Your task to perform on an android device: install app "Google Duo" Image 0: 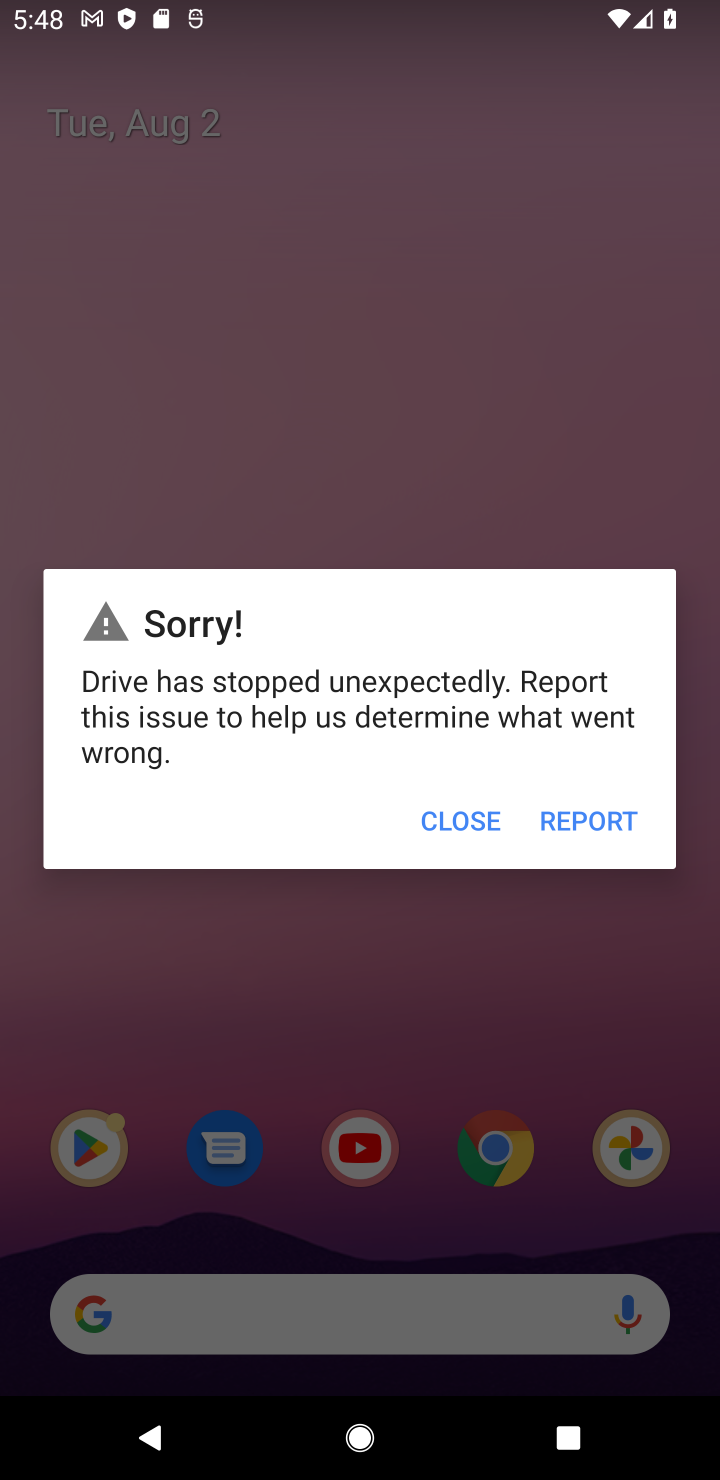
Step 0: click (450, 840)
Your task to perform on an android device: install app "Google Duo" Image 1: 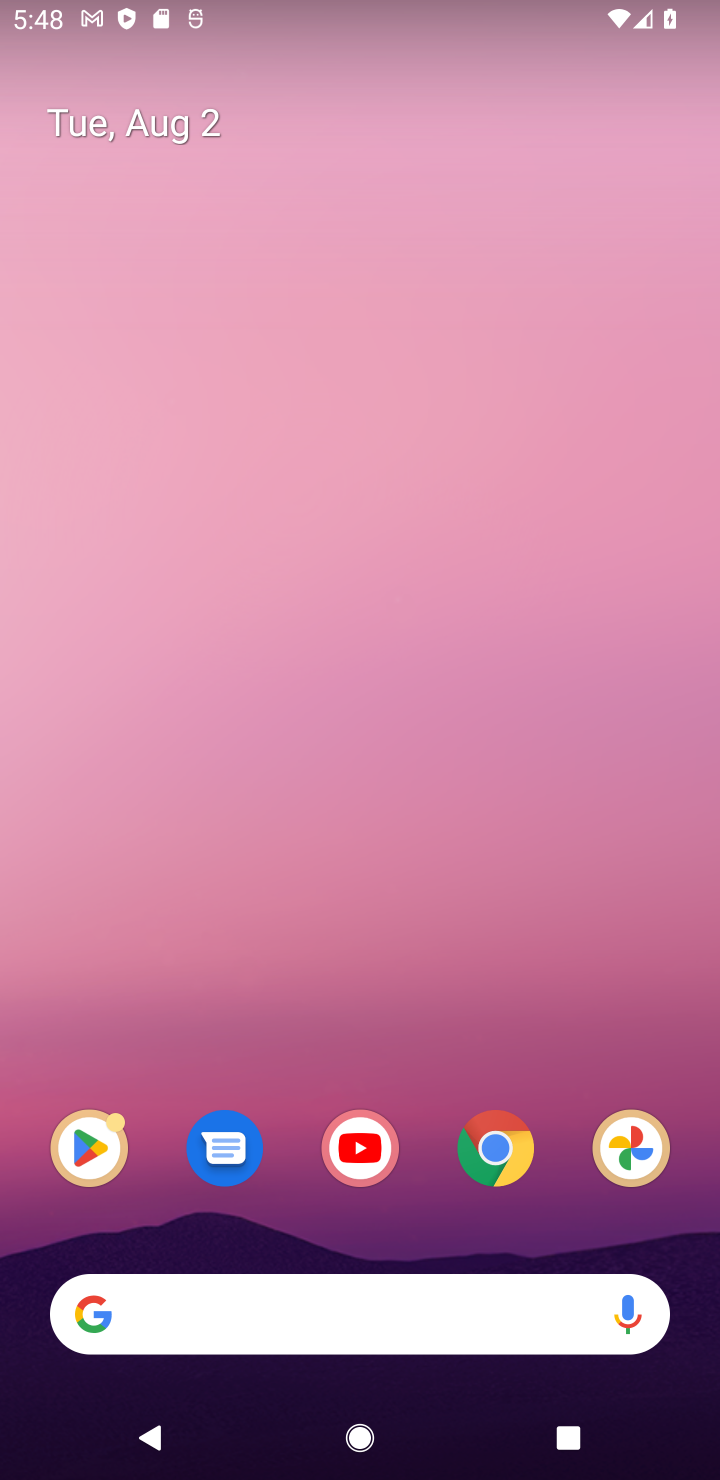
Step 1: drag from (554, 1118) to (262, 115)
Your task to perform on an android device: install app "Google Duo" Image 2: 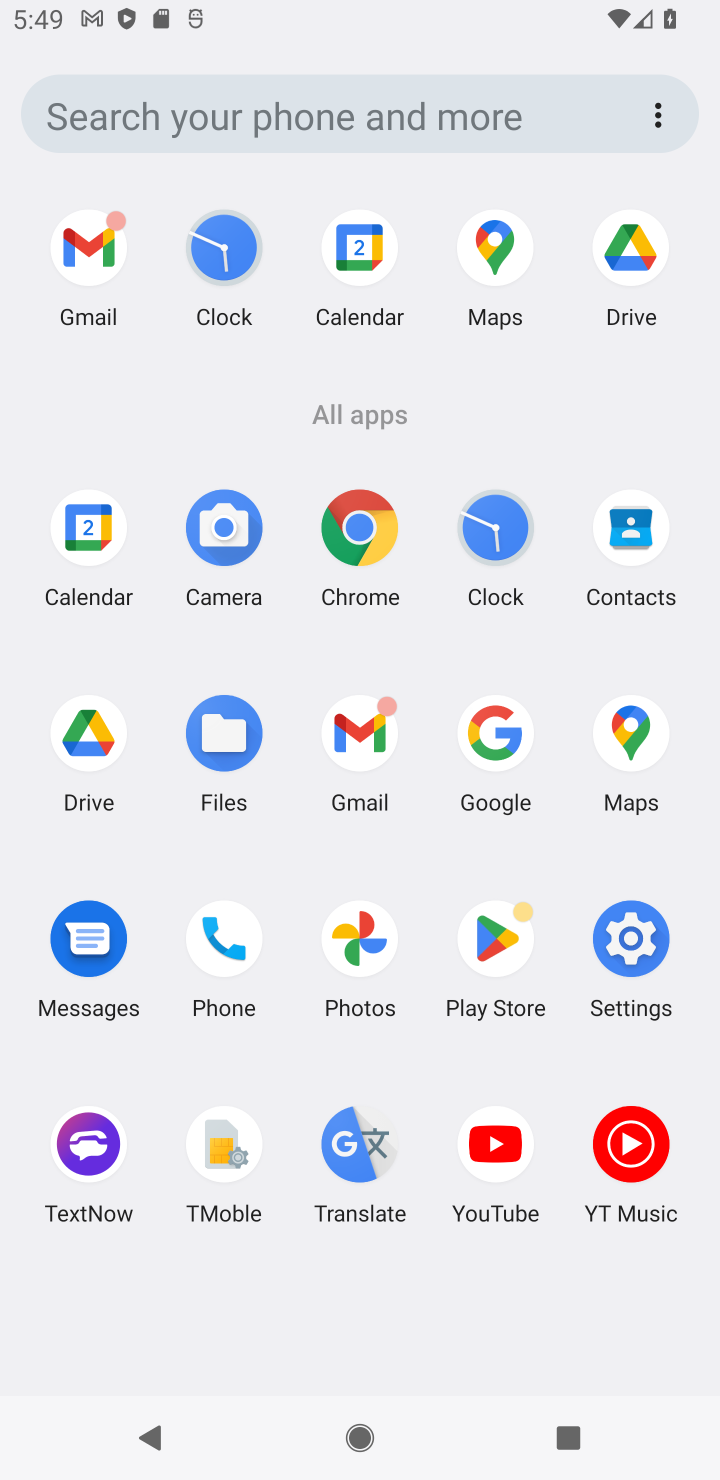
Step 2: click (472, 943)
Your task to perform on an android device: install app "Google Duo" Image 3: 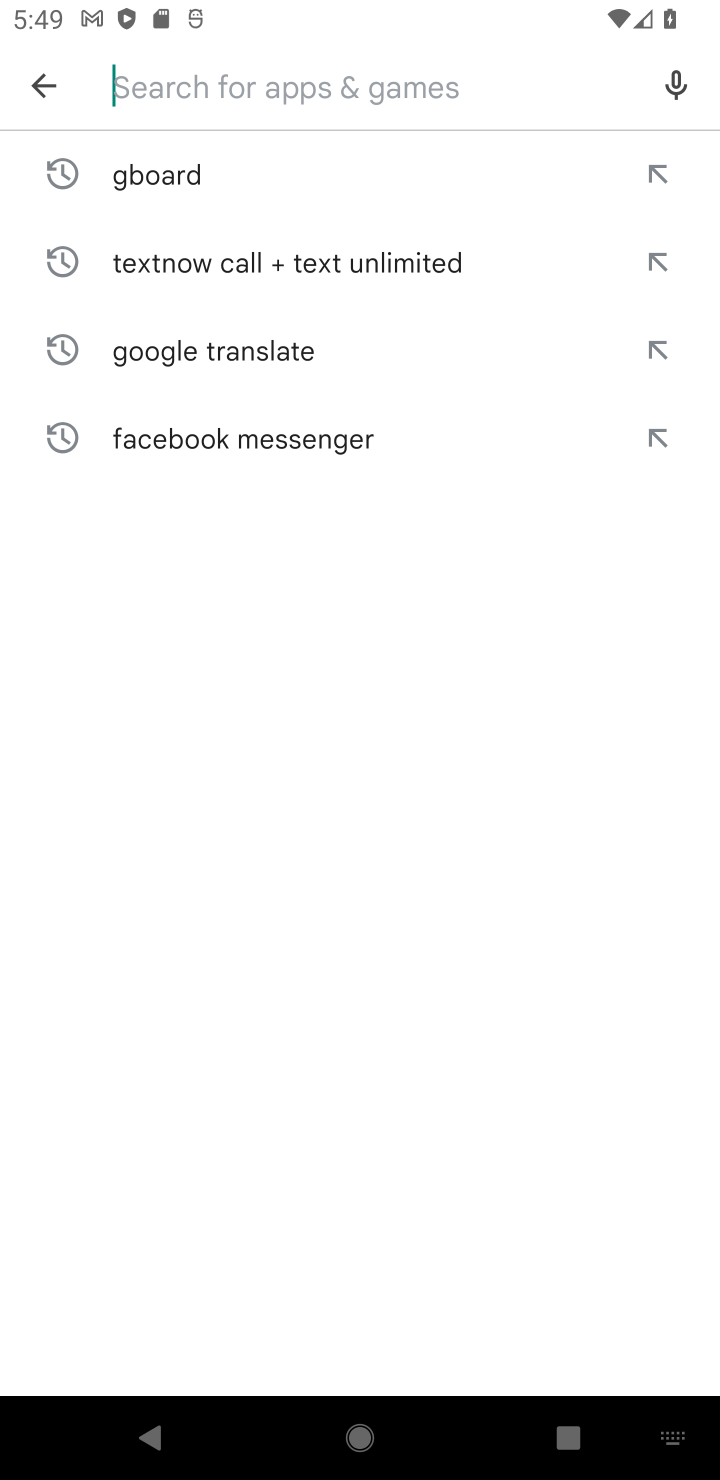
Step 3: type "Google Duo"
Your task to perform on an android device: install app "Google Duo" Image 4: 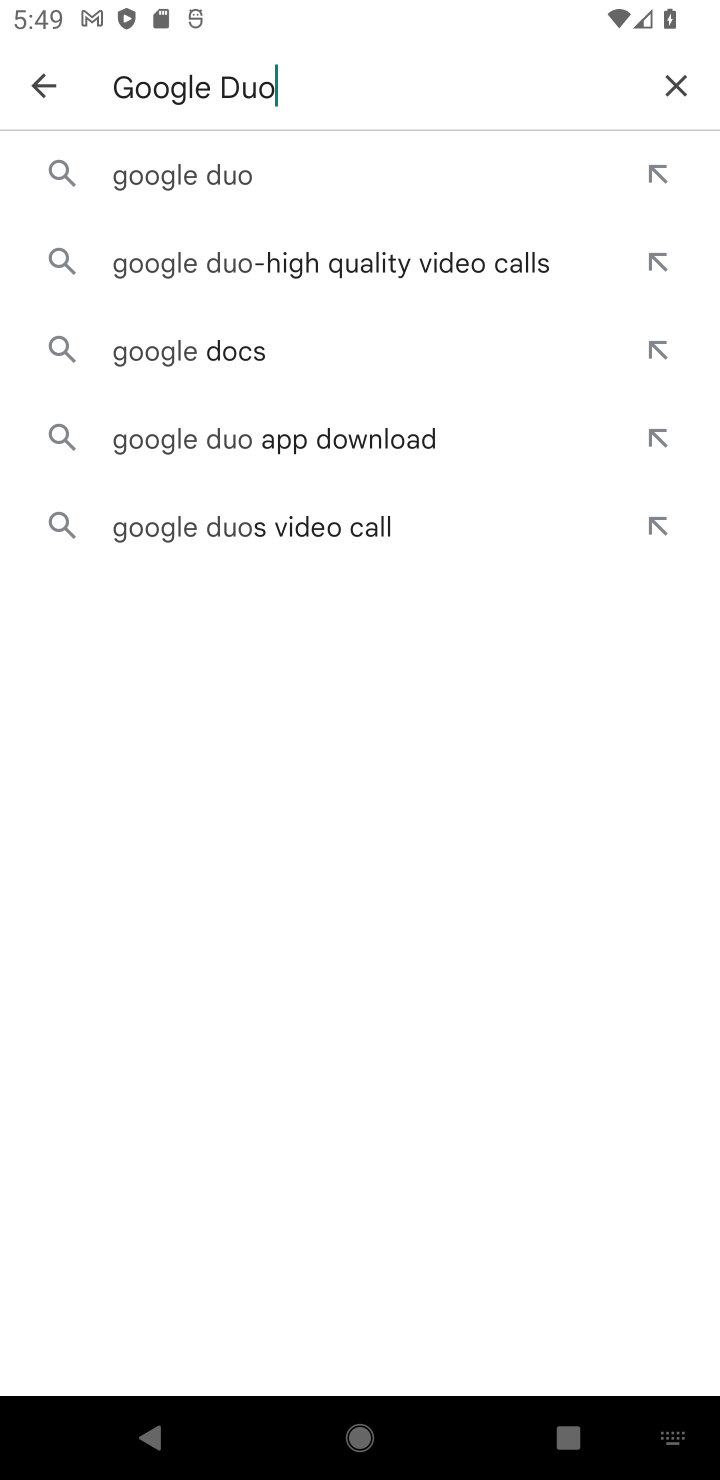
Step 4: click (220, 172)
Your task to perform on an android device: install app "Google Duo" Image 5: 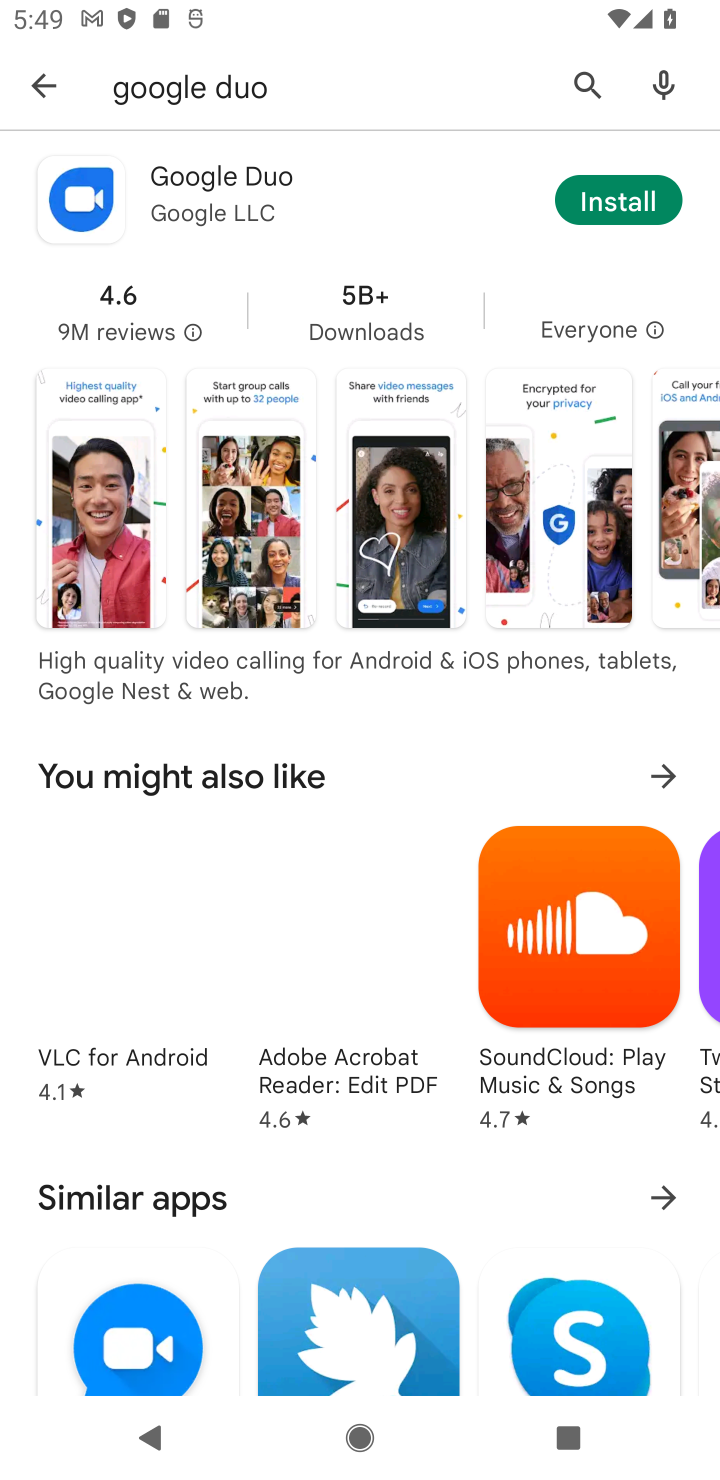
Step 5: click (625, 218)
Your task to perform on an android device: install app "Google Duo" Image 6: 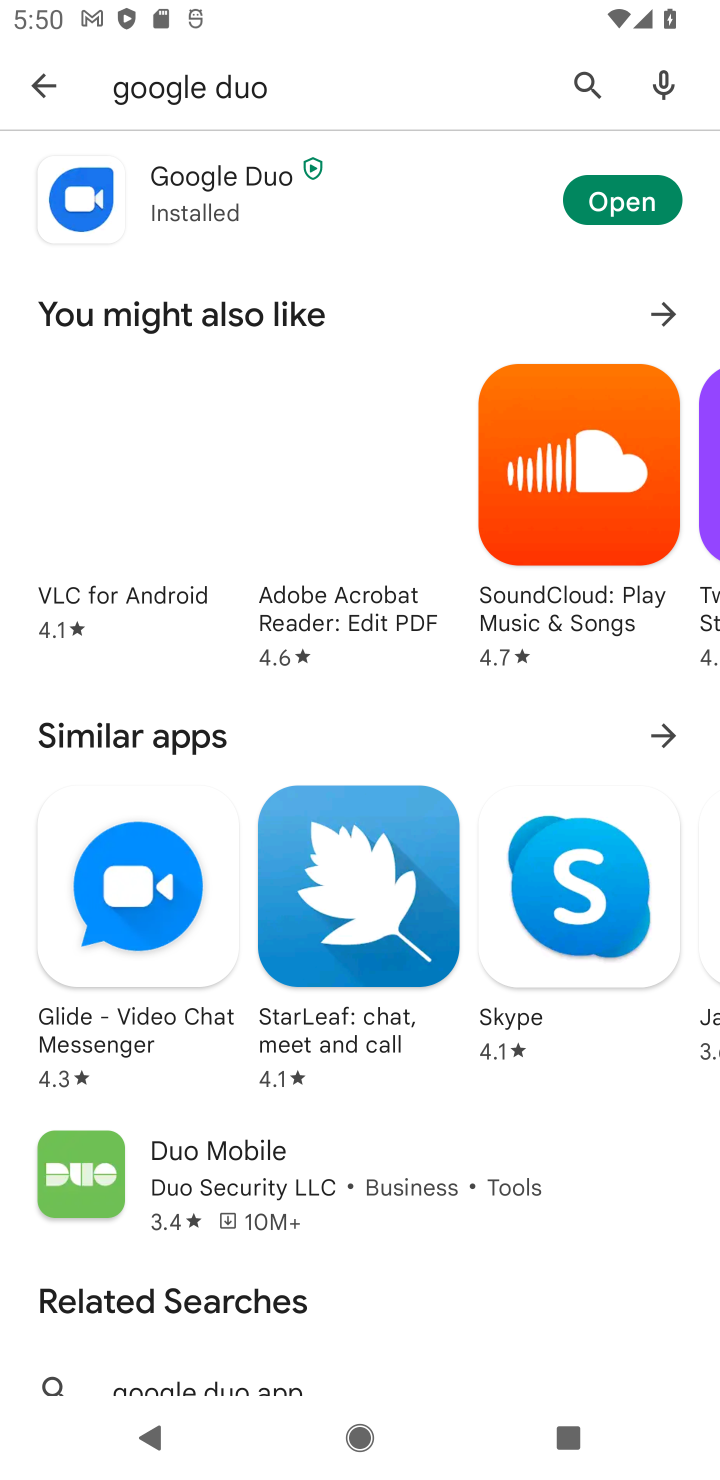
Step 6: task complete